Your task to perform on an android device: turn on the 24-hour format for clock Image 0: 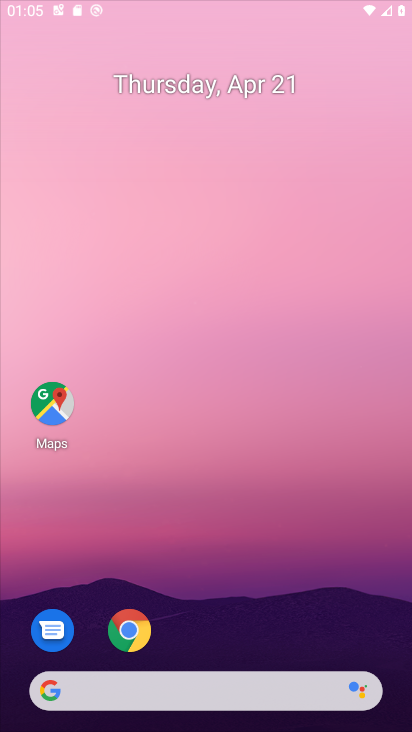
Step 0: drag from (316, 545) to (240, 17)
Your task to perform on an android device: turn on the 24-hour format for clock Image 1: 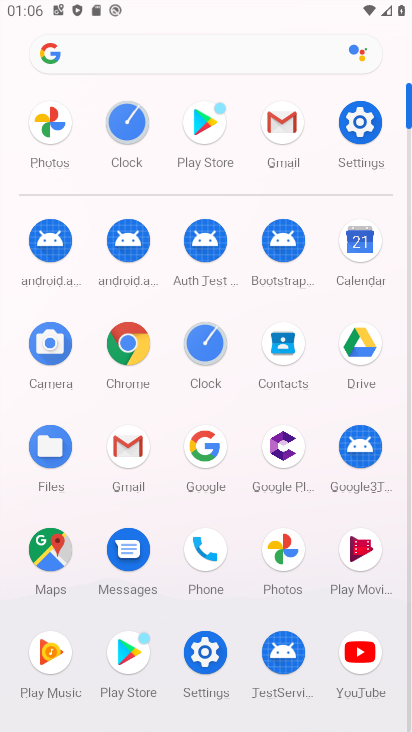
Step 1: click (125, 140)
Your task to perform on an android device: turn on the 24-hour format for clock Image 2: 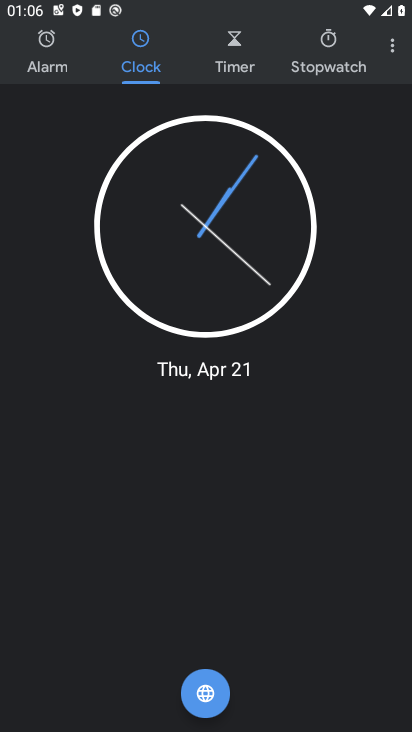
Step 2: click (388, 44)
Your task to perform on an android device: turn on the 24-hour format for clock Image 3: 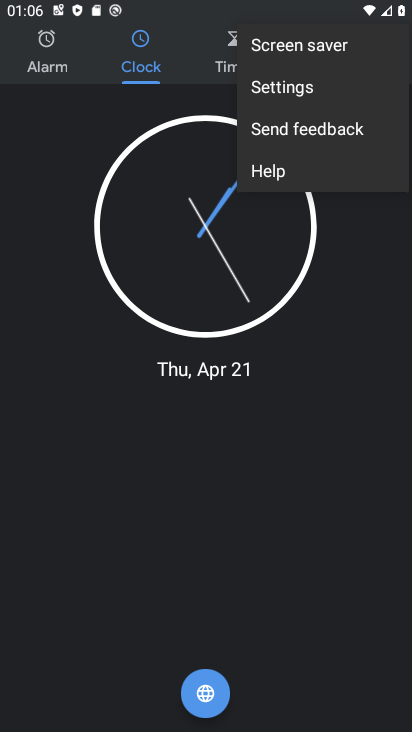
Step 3: click (330, 103)
Your task to perform on an android device: turn on the 24-hour format for clock Image 4: 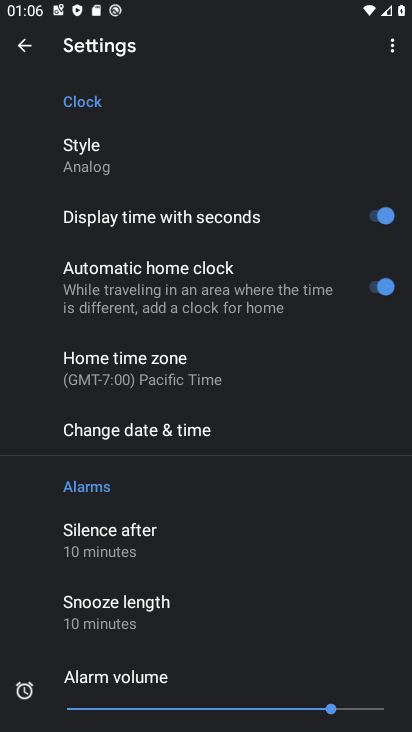
Step 4: click (218, 437)
Your task to perform on an android device: turn on the 24-hour format for clock Image 5: 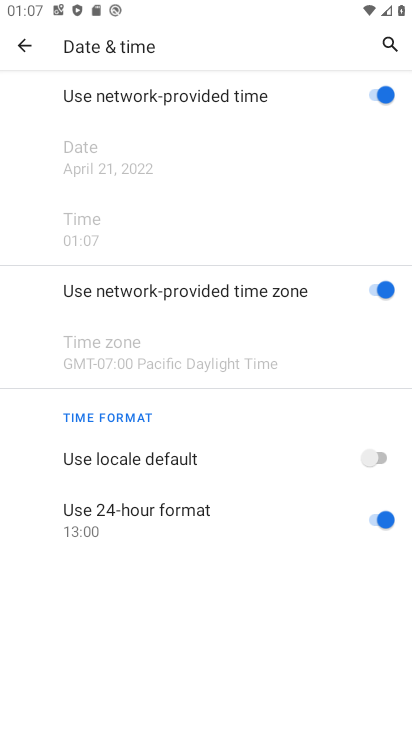
Step 5: task complete